Your task to perform on an android device: turn off wifi Image 0: 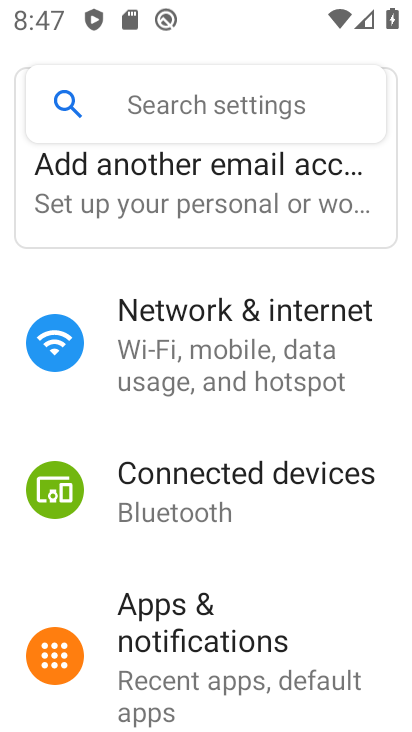
Step 0: click (277, 391)
Your task to perform on an android device: turn off wifi Image 1: 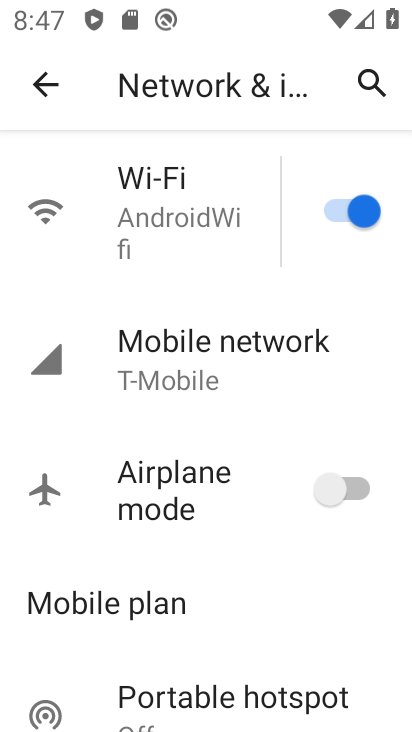
Step 1: click (324, 216)
Your task to perform on an android device: turn off wifi Image 2: 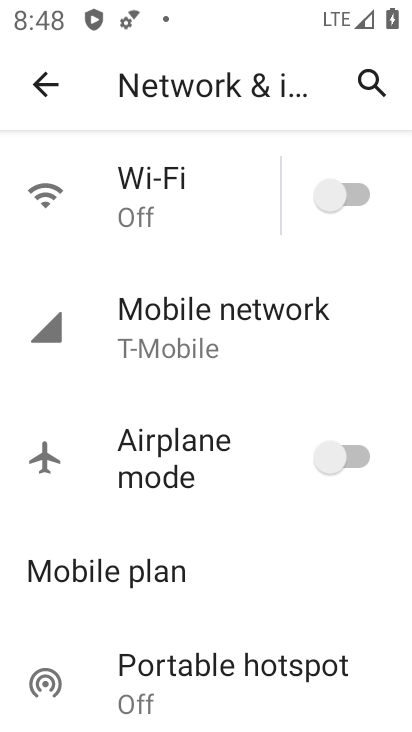
Step 2: task complete